Your task to perform on an android device: turn off improve location accuracy Image 0: 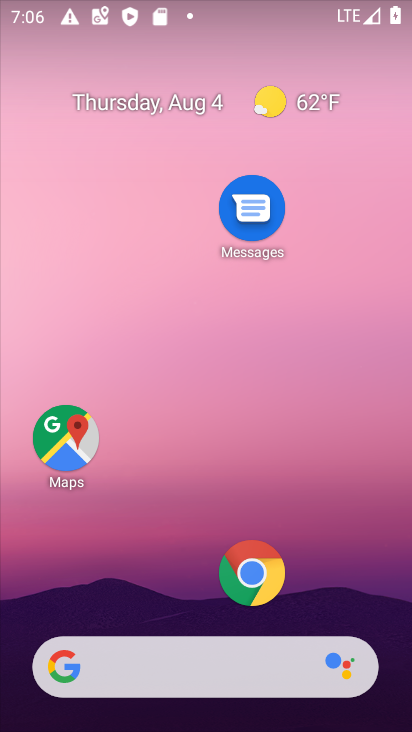
Step 0: press home button
Your task to perform on an android device: turn off improve location accuracy Image 1: 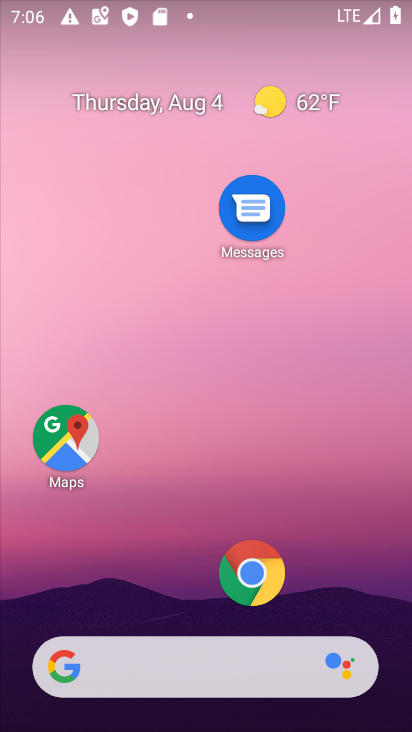
Step 1: drag from (183, 603) to (156, 109)
Your task to perform on an android device: turn off improve location accuracy Image 2: 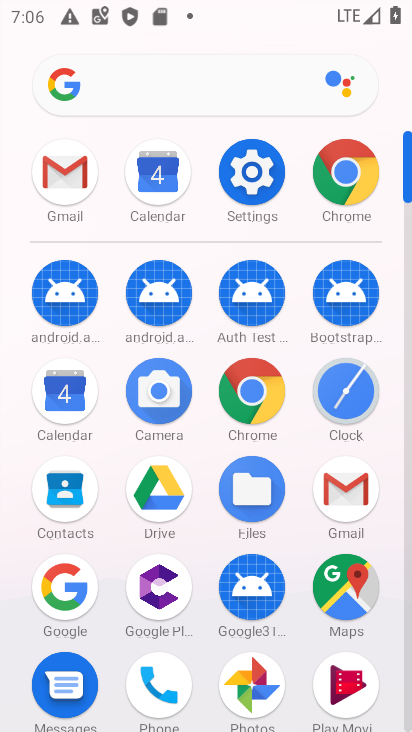
Step 2: click (261, 170)
Your task to perform on an android device: turn off improve location accuracy Image 3: 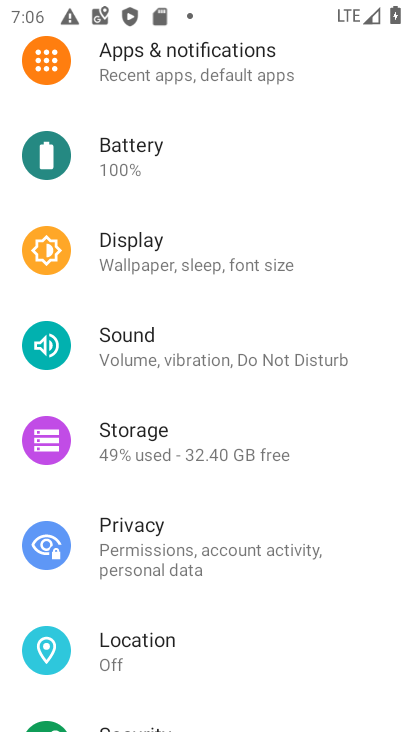
Step 3: click (139, 644)
Your task to perform on an android device: turn off improve location accuracy Image 4: 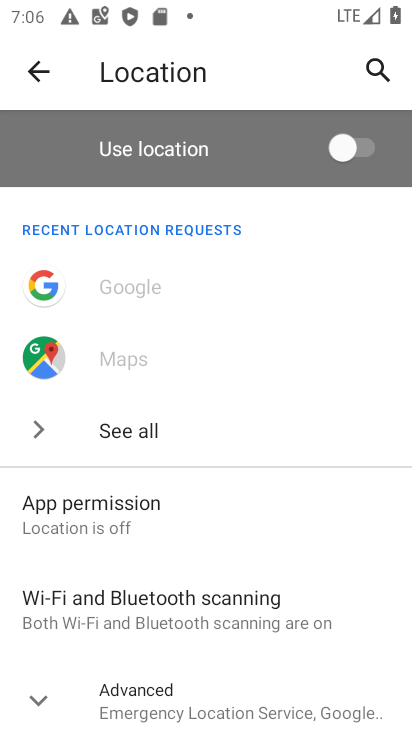
Step 4: click (143, 701)
Your task to perform on an android device: turn off improve location accuracy Image 5: 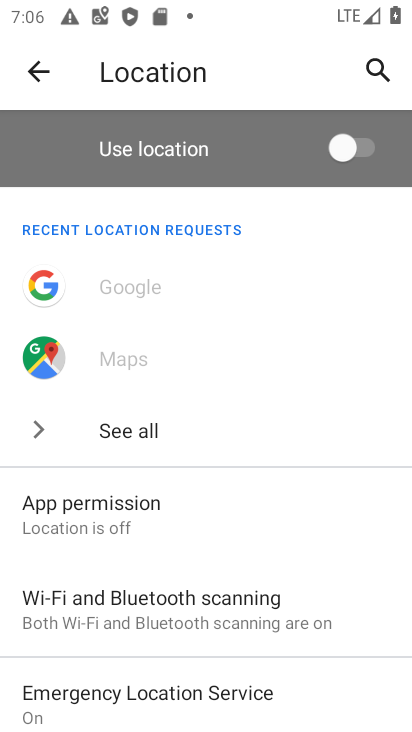
Step 5: drag from (349, 672) to (320, 244)
Your task to perform on an android device: turn off improve location accuracy Image 6: 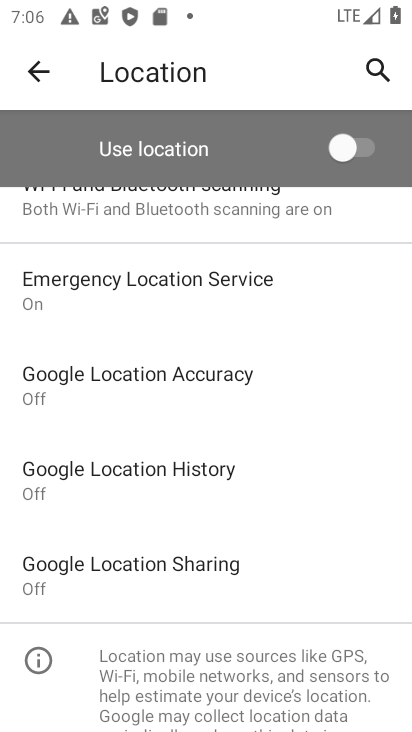
Step 6: click (176, 381)
Your task to perform on an android device: turn off improve location accuracy Image 7: 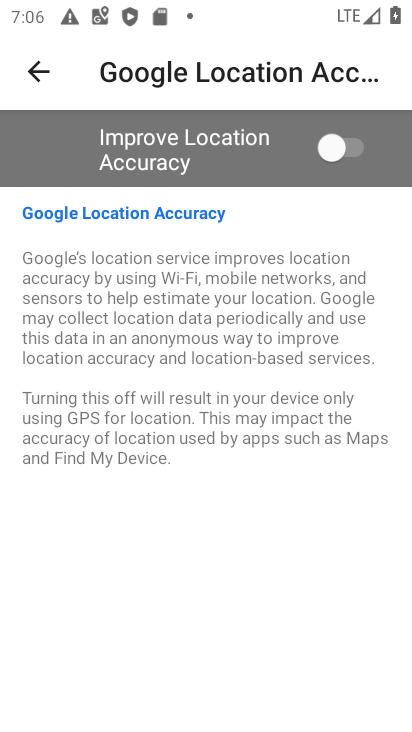
Step 7: task complete